Your task to perform on an android device: turn off javascript in the chrome app Image 0: 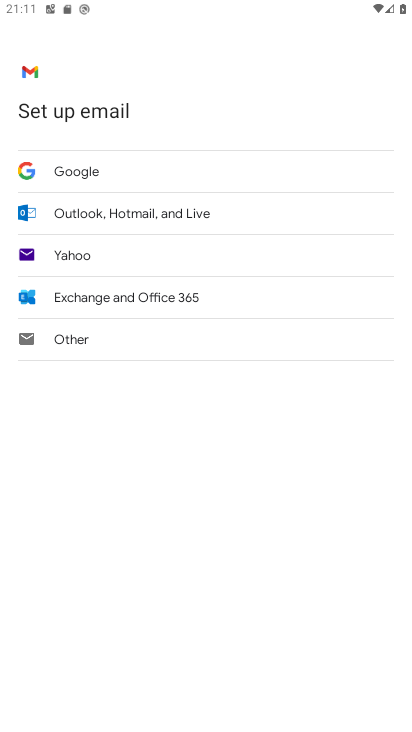
Step 0: press home button
Your task to perform on an android device: turn off javascript in the chrome app Image 1: 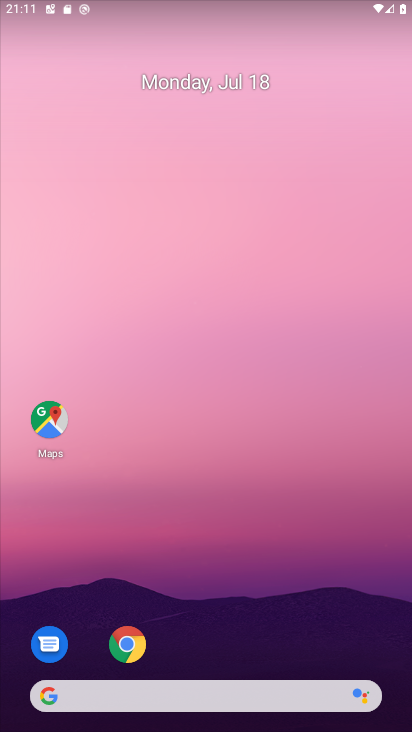
Step 1: click (138, 652)
Your task to perform on an android device: turn off javascript in the chrome app Image 2: 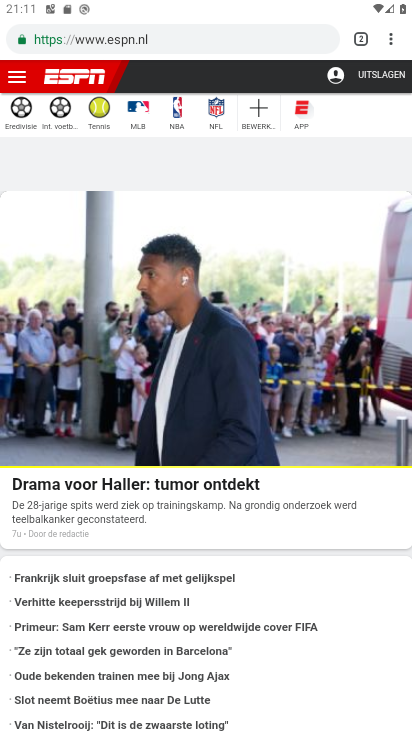
Step 2: click (393, 36)
Your task to perform on an android device: turn off javascript in the chrome app Image 3: 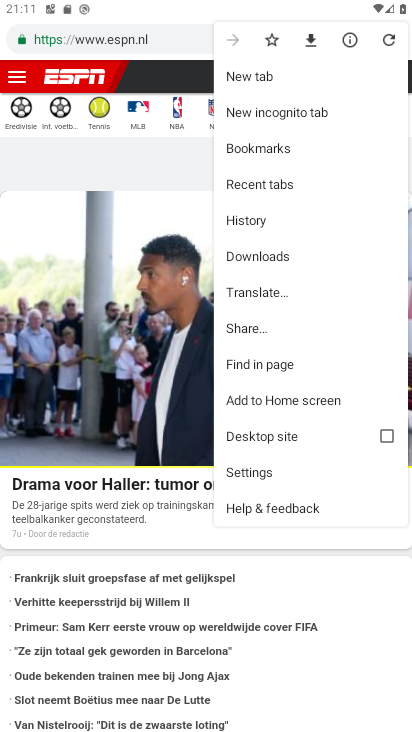
Step 3: click (259, 479)
Your task to perform on an android device: turn off javascript in the chrome app Image 4: 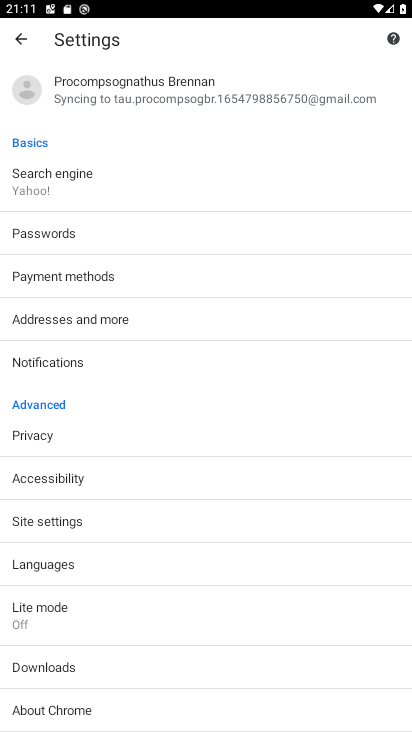
Step 4: click (174, 522)
Your task to perform on an android device: turn off javascript in the chrome app Image 5: 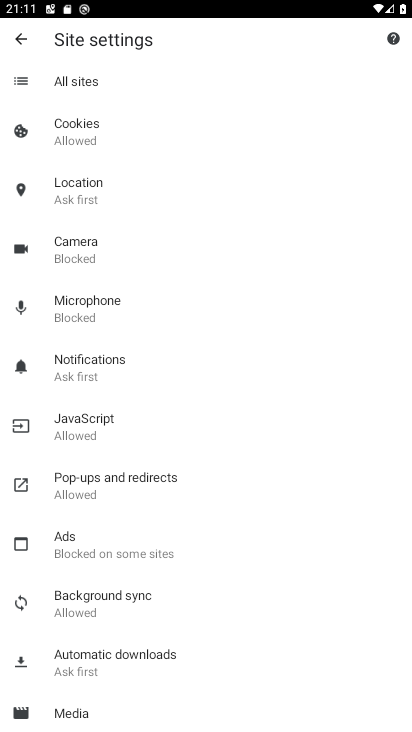
Step 5: click (176, 437)
Your task to perform on an android device: turn off javascript in the chrome app Image 6: 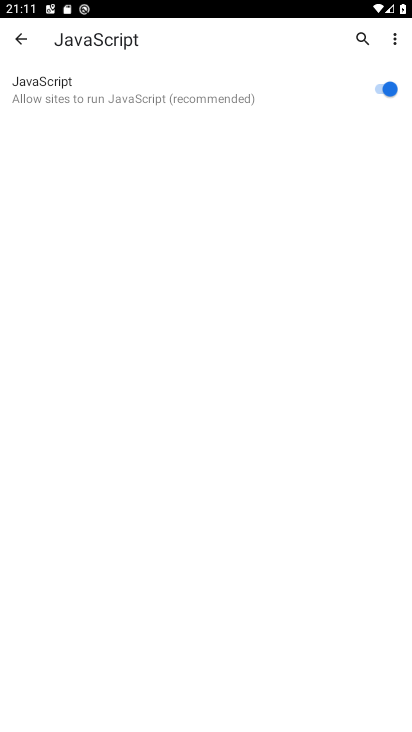
Step 6: click (379, 88)
Your task to perform on an android device: turn off javascript in the chrome app Image 7: 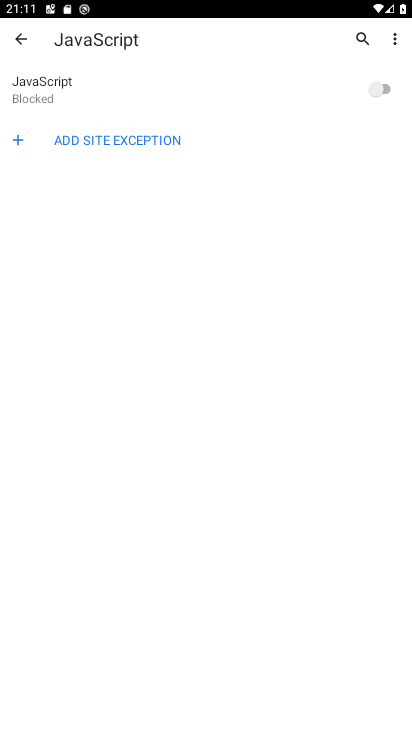
Step 7: task complete